Your task to perform on an android device: check out phone information Image 0: 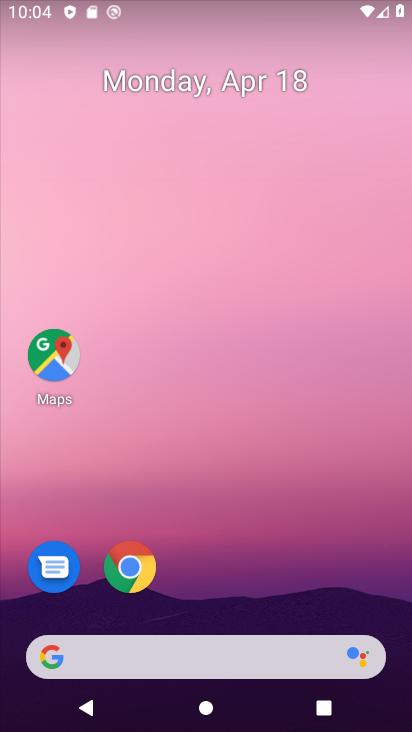
Step 0: drag from (192, 590) to (243, 72)
Your task to perform on an android device: check out phone information Image 1: 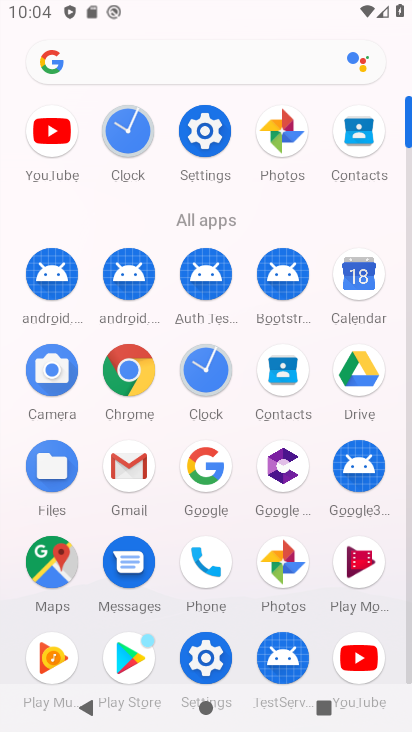
Step 1: click (204, 579)
Your task to perform on an android device: check out phone information Image 2: 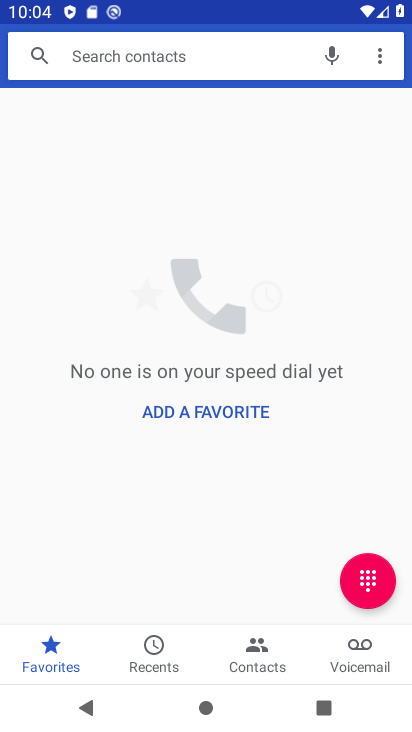
Step 2: click (383, 57)
Your task to perform on an android device: check out phone information Image 3: 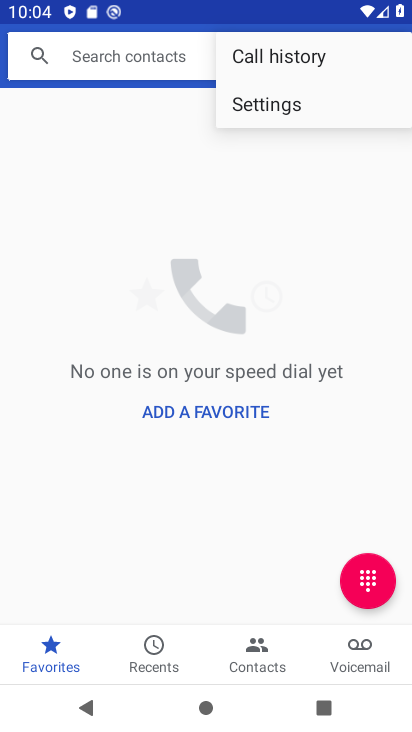
Step 3: click (289, 106)
Your task to perform on an android device: check out phone information Image 4: 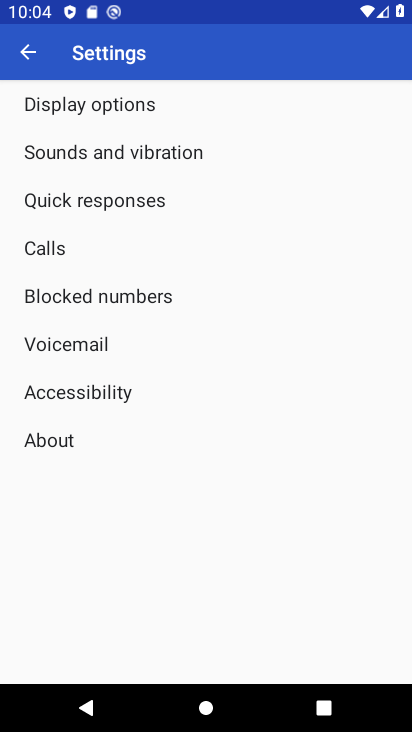
Step 4: click (45, 439)
Your task to perform on an android device: check out phone information Image 5: 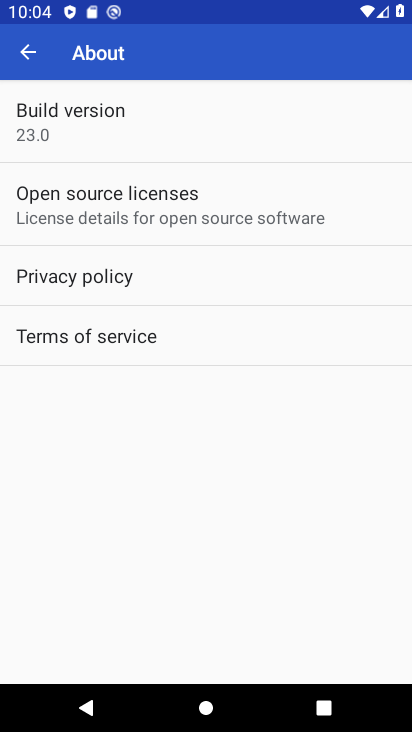
Step 5: click (84, 123)
Your task to perform on an android device: check out phone information Image 6: 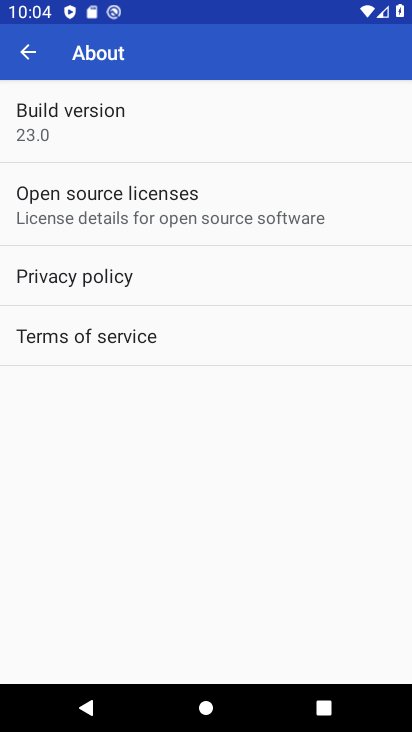
Step 6: click (32, 57)
Your task to perform on an android device: check out phone information Image 7: 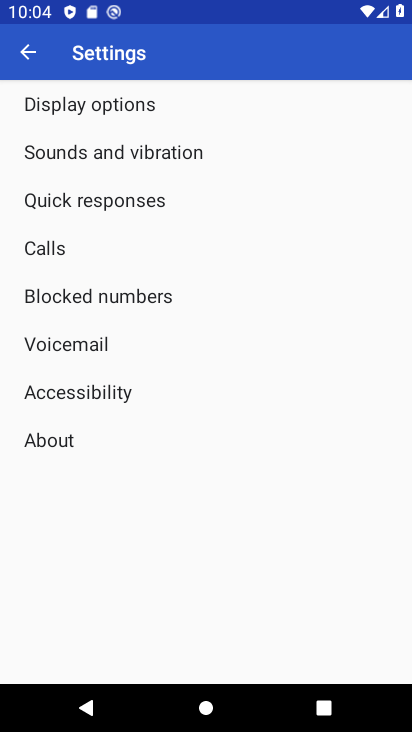
Step 7: click (42, 436)
Your task to perform on an android device: check out phone information Image 8: 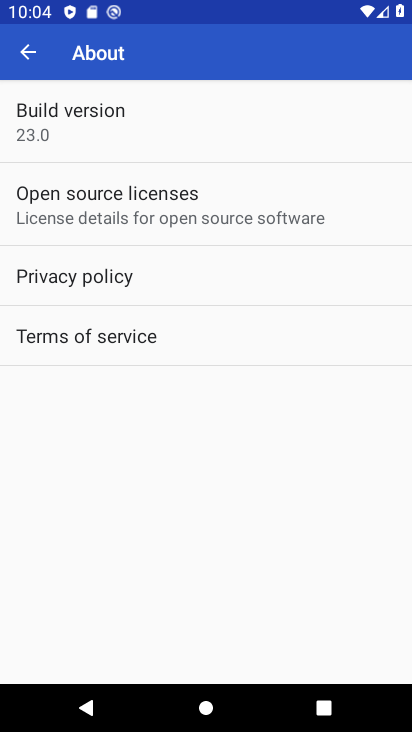
Step 8: task complete